Your task to perform on an android device: turn off priority inbox in the gmail app Image 0: 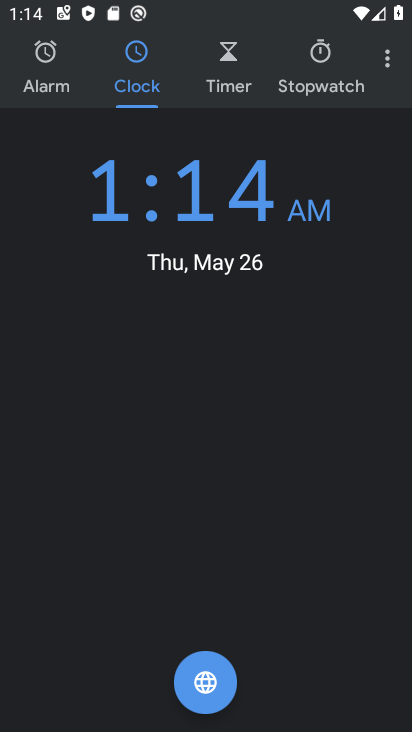
Step 0: press home button
Your task to perform on an android device: turn off priority inbox in the gmail app Image 1: 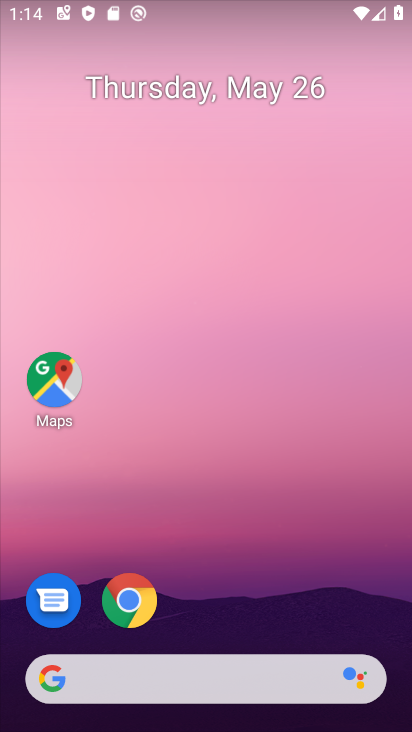
Step 1: drag from (222, 586) to (244, 225)
Your task to perform on an android device: turn off priority inbox in the gmail app Image 2: 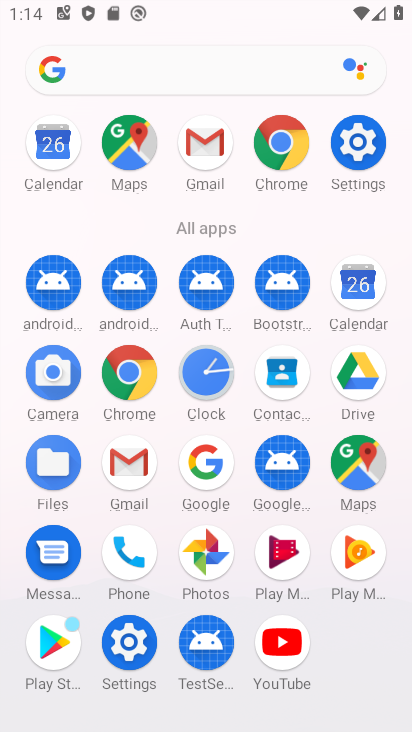
Step 2: click (201, 158)
Your task to perform on an android device: turn off priority inbox in the gmail app Image 3: 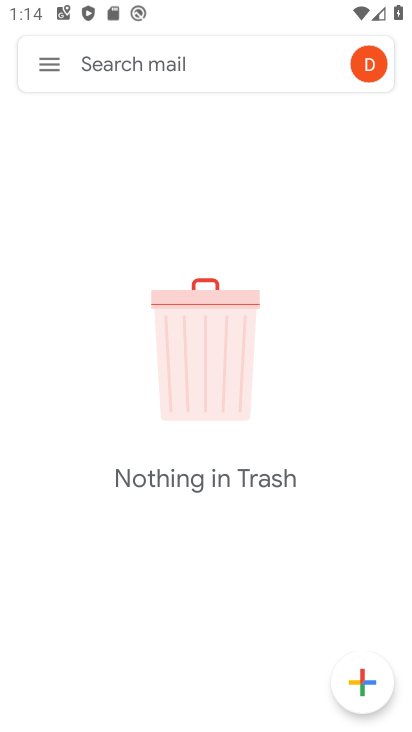
Step 3: click (46, 73)
Your task to perform on an android device: turn off priority inbox in the gmail app Image 4: 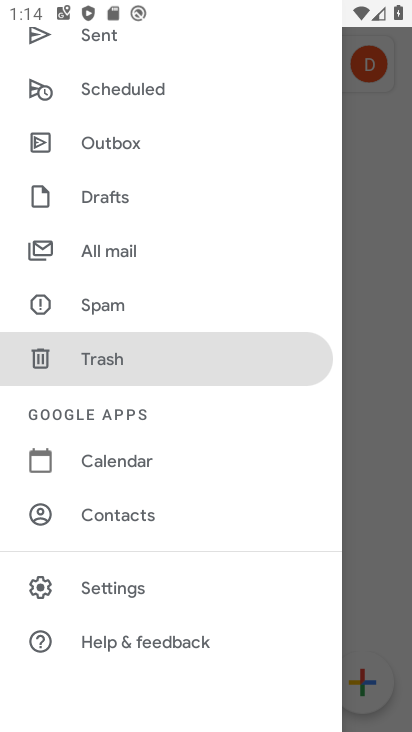
Step 4: click (96, 596)
Your task to perform on an android device: turn off priority inbox in the gmail app Image 5: 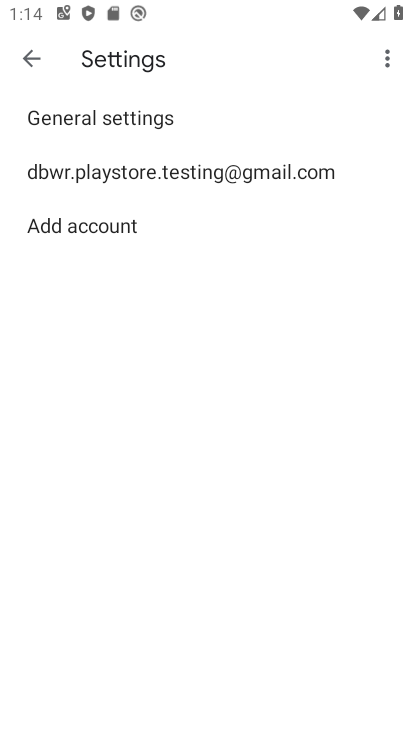
Step 5: click (404, 69)
Your task to perform on an android device: turn off priority inbox in the gmail app Image 6: 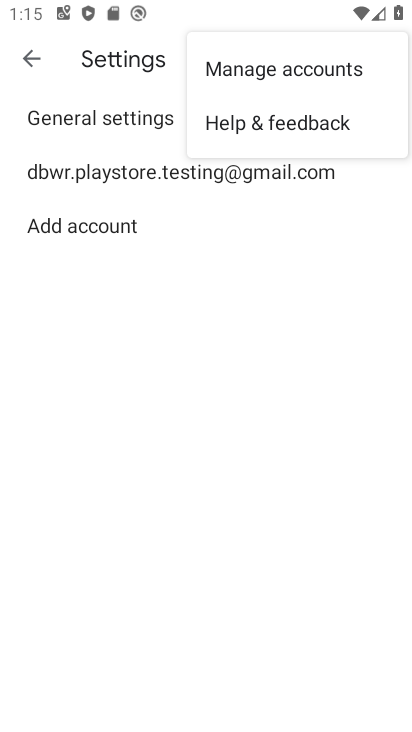
Step 6: click (61, 117)
Your task to perform on an android device: turn off priority inbox in the gmail app Image 7: 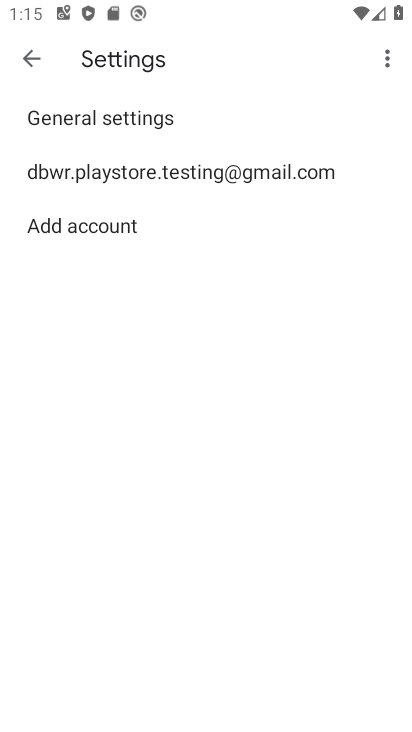
Step 7: click (63, 117)
Your task to perform on an android device: turn off priority inbox in the gmail app Image 8: 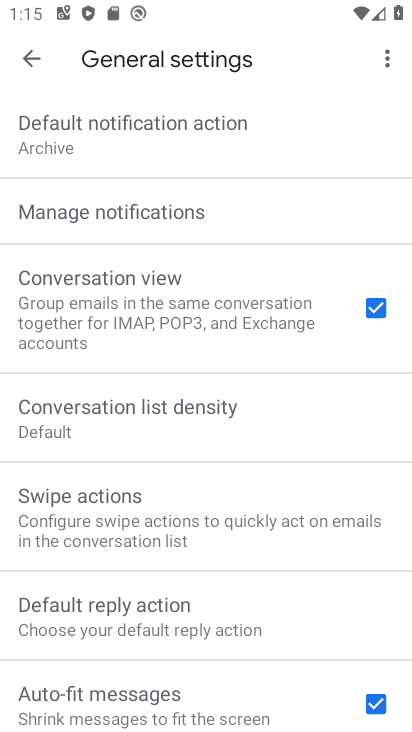
Step 8: task complete